Your task to perform on an android device: open wifi settings Image 0: 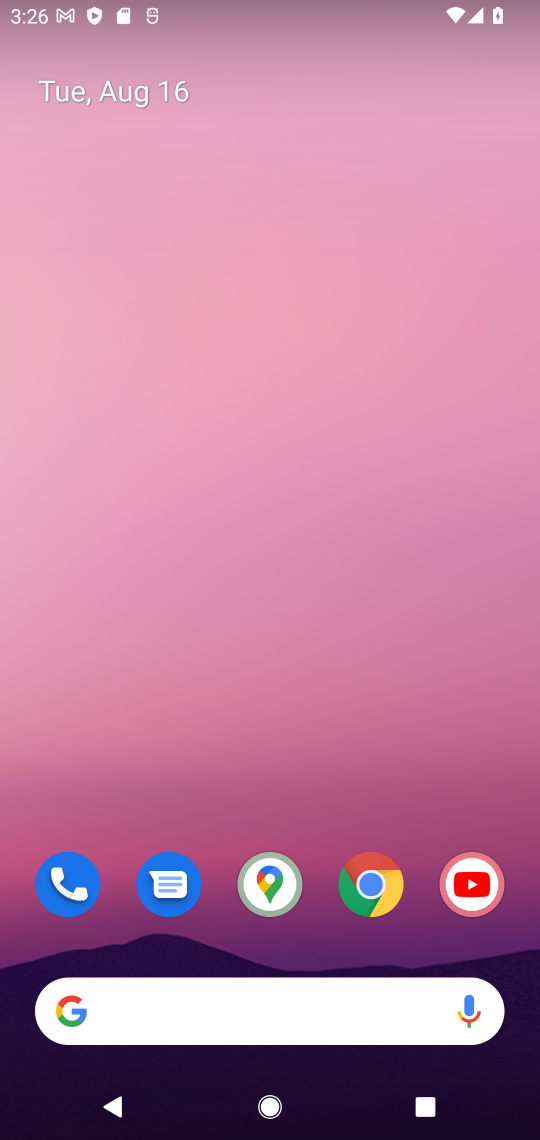
Step 0: drag from (326, 680) to (263, 109)
Your task to perform on an android device: open wifi settings Image 1: 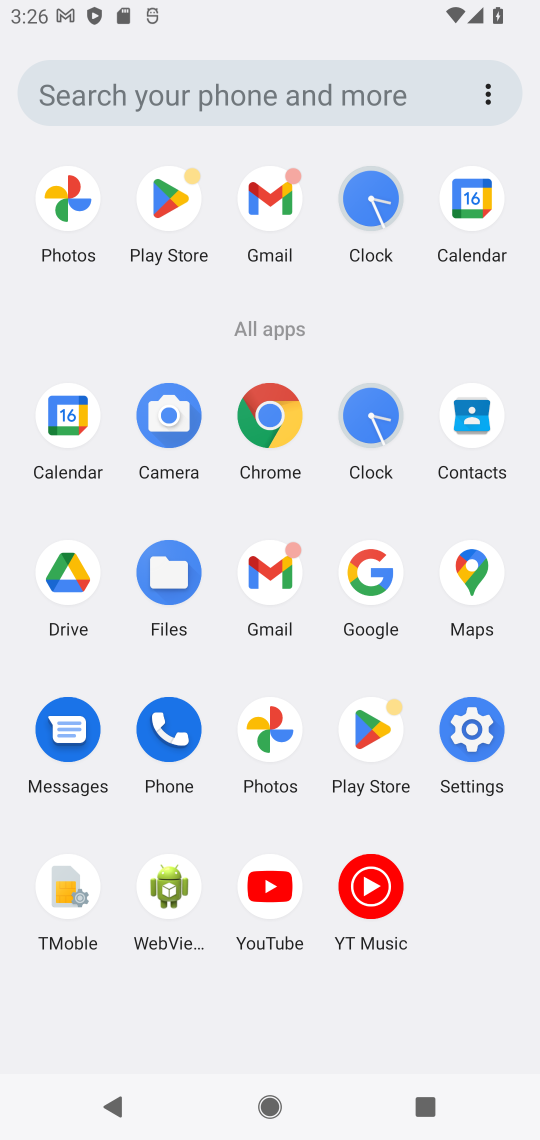
Step 1: click (457, 758)
Your task to perform on an android device: open wifi settings Image 2: 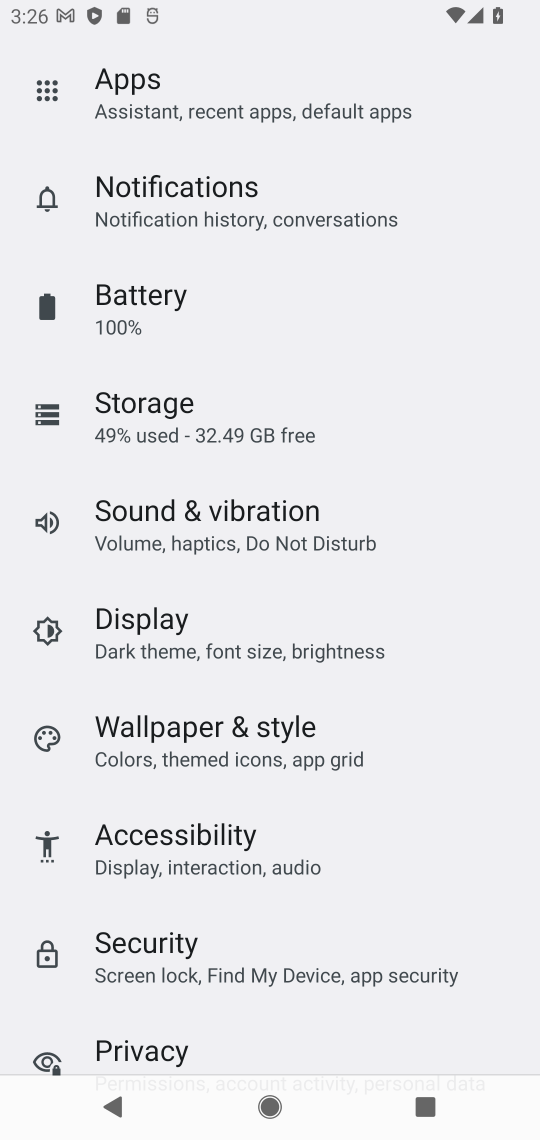
Step 2: drag from (266, 284) to (286, 803)
Your task to perform on an android device: open wifi settings Image 3: 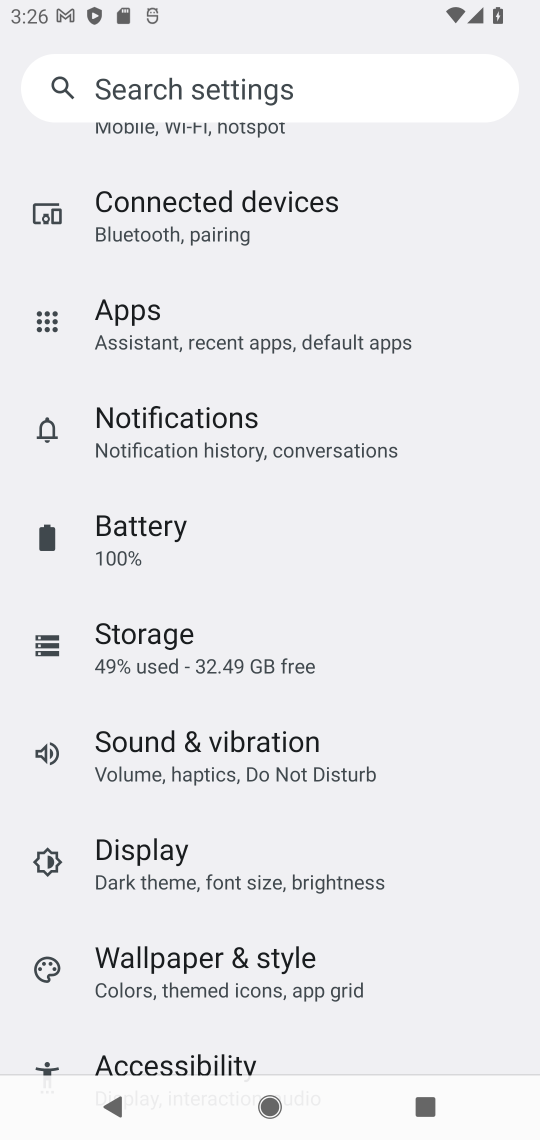
Step 3: drag from (249, 333) to (323, 851)
Your task to perform on an android device: open wifi settings Image 4: 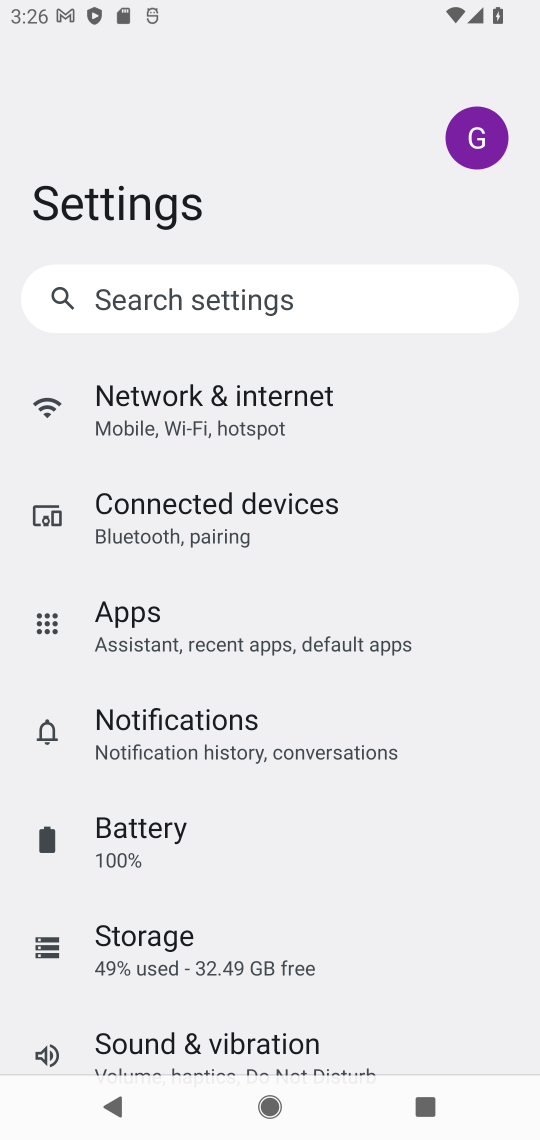
Step 4: click (250, 433)
Your task to perform on an android device: open wifi settings Image 5: 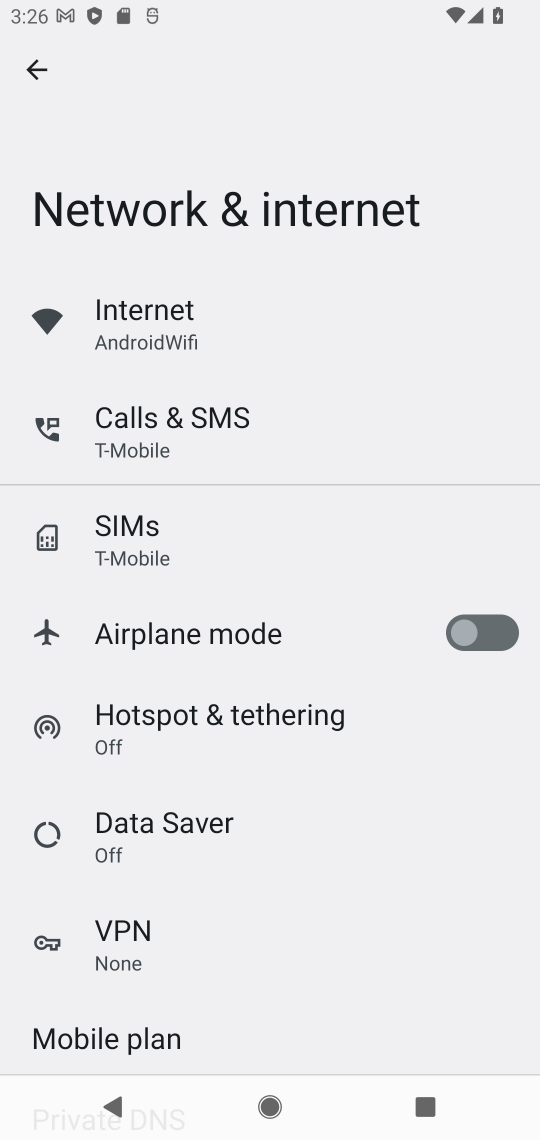
Step 5: click (159, 328)
Your task to perform on an android device: open wifi settings Image 6: 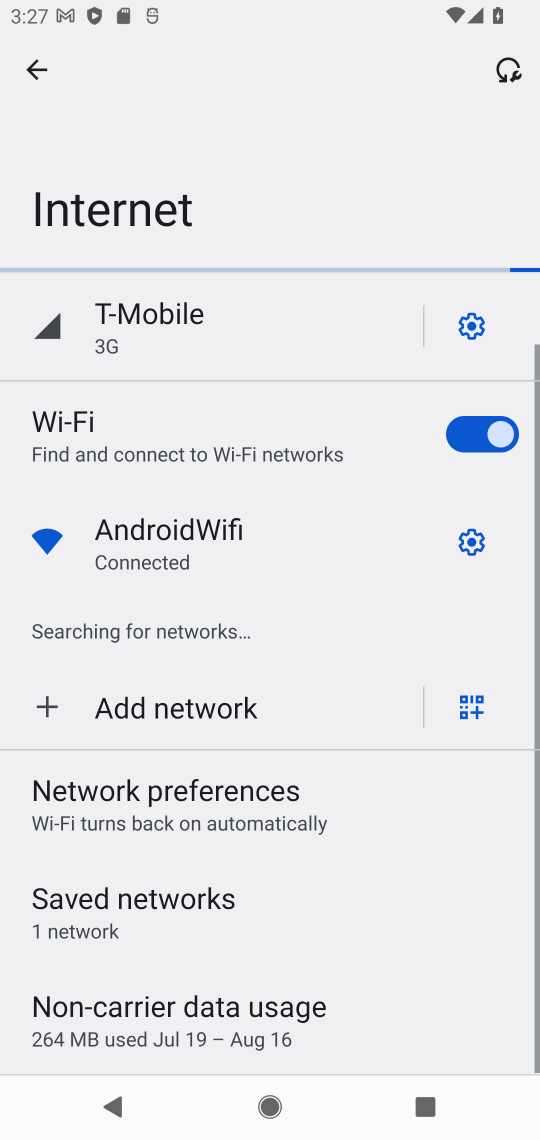
Step 6: task complete